Your task to perform on an android device: What's the weather going to be this weekend? Image 0: 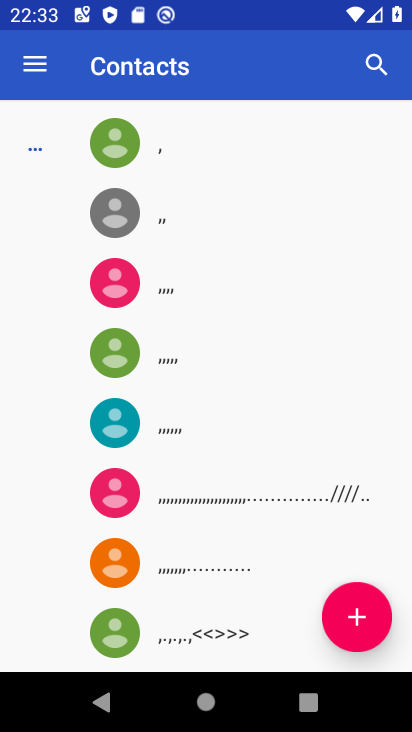
Step 0: press home button
Your task to perform on an android device: What's the weather going to be this weekend? Image 1: 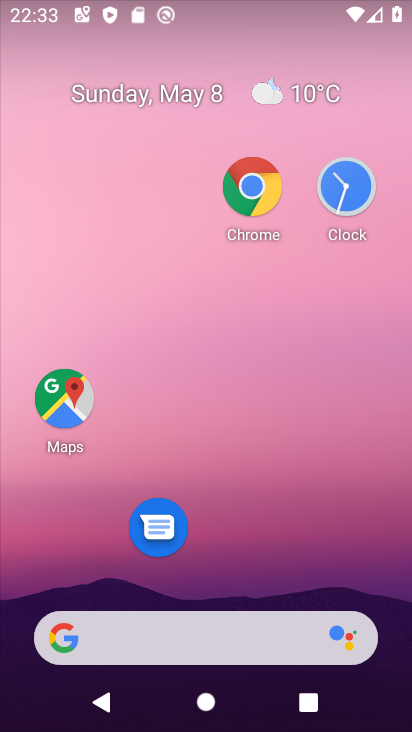
Step 1: click (320, 101)
Your task to perform on an android device: What's the weather going to be this weekend? Image 2: 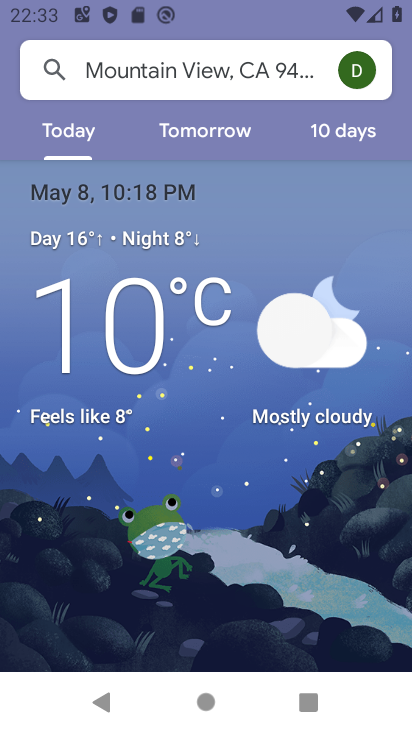
Step 2: click (382, 127)
Your task to perform on an android device: What's the weather going to be this weekend? Image 3: 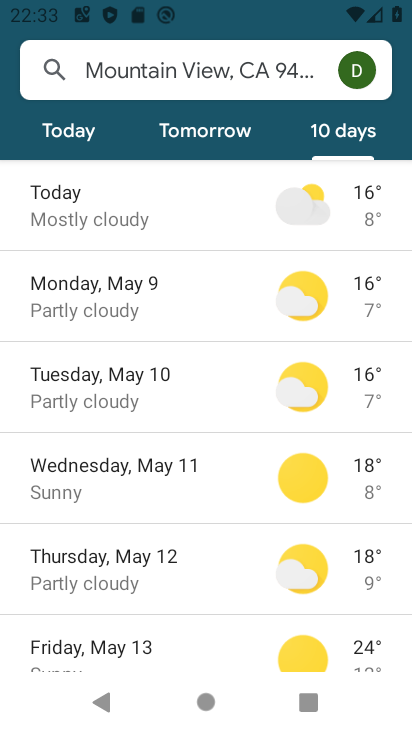
Step 3: task complete